Your task to perform on an android device: change your default location settings in chrome Image 0: 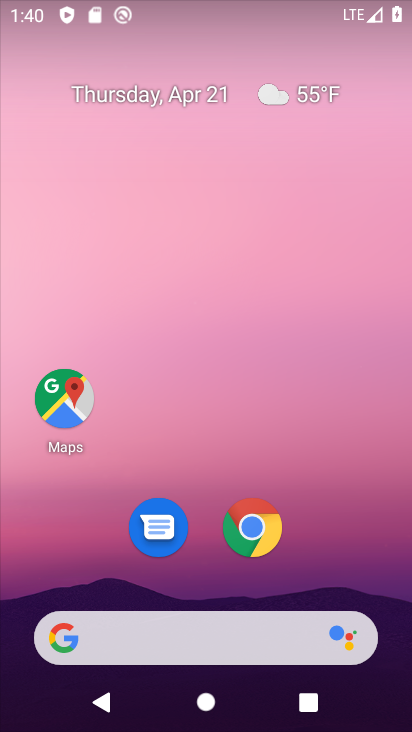
Step 0: drag from (339, 549) to (354, 124)
Your task to perform on an android device: change your default location settings in chrome Image 1: 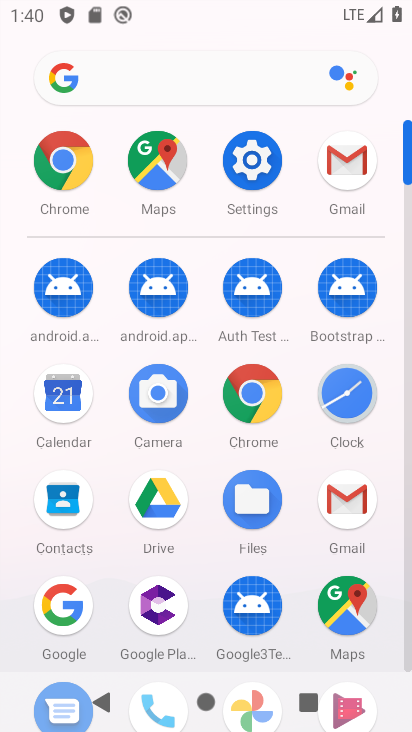
Step 1: click (260, 402)
Your task to perform on an android device: change your default location settings in chrome Image 2: 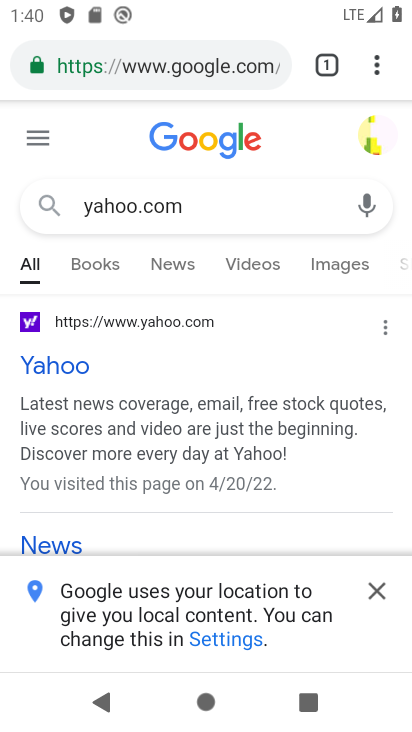
Step 2: click (377, 65)
Your task to perform on an android device: change your default location settings in chrome Image 3: 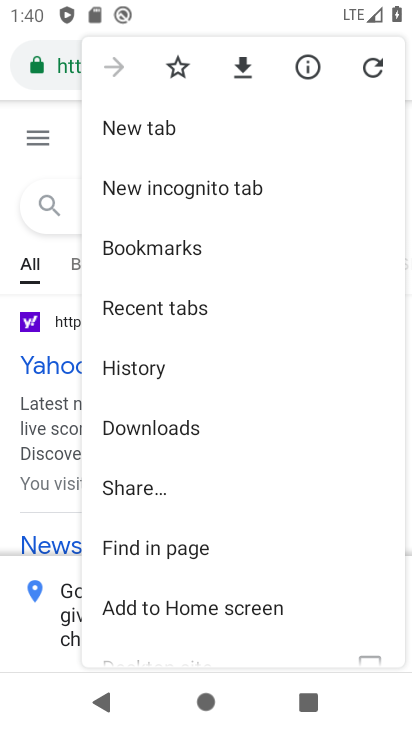
Step 3: drag from (312, 579) to (336, 445)
Your task to perform on an android device: change your default location settings in chrome Image 4: 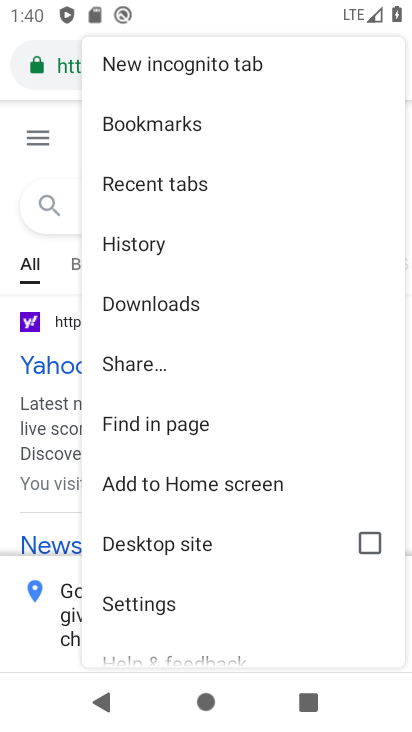
Step 4: drag from (306, 593) to (314, 437)
Your task to perform on an android device: change your default location settings in chrome Image 5: 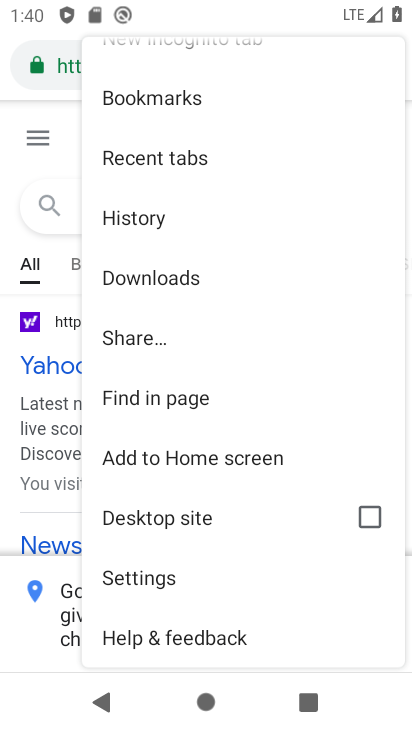
Step 5: click (164, 589)
Your task to perform on an android device: change your default location settings in chrome Image 6: 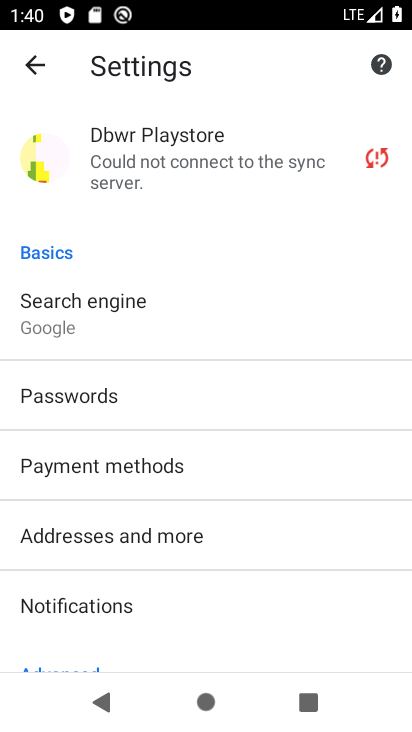
Step 6: drag from (363, 570) to (373, 441)
Your task to perform on an android device: change your default location settings in chrome Image 7: 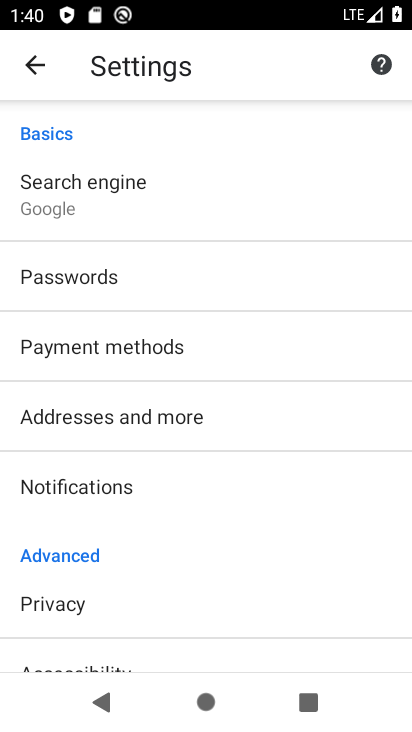
Step 7: drag from (363, 592) to (361, 460)
Your task to perform on an android device: change your default location settings in chrome Image 8: 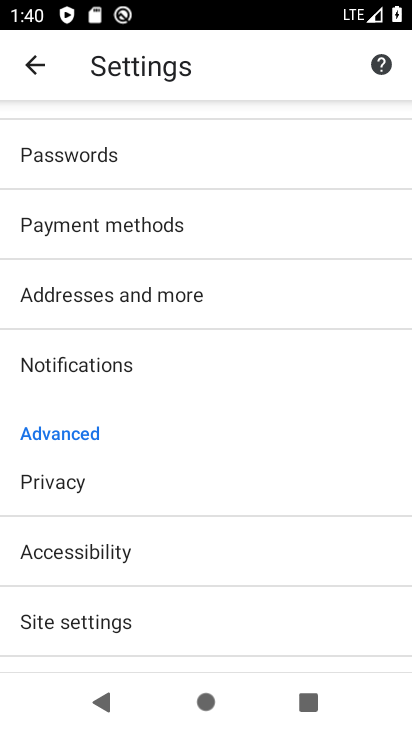
Step 8: drag from (341, 610) to (342, 476)
Your task to perform on an android device: change your default location settings in chrome Image 9: 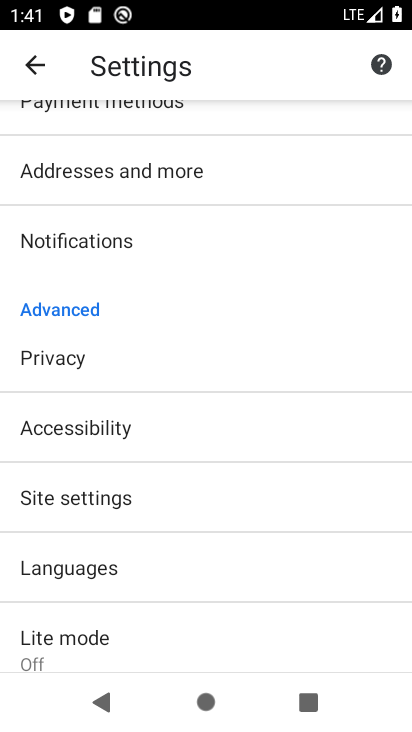
Step 9: drag from (338, 617) to (343, 520)
Your task to perform on an android device: change your default location settings in chrome Image 10: 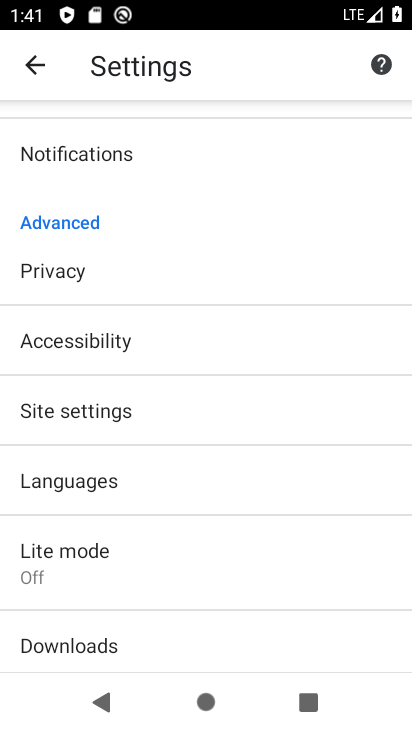
Step 10: drag from (325, 603) to (344, 480)
Your task to perform on an android device: change your default location settings in chrome Image 11: 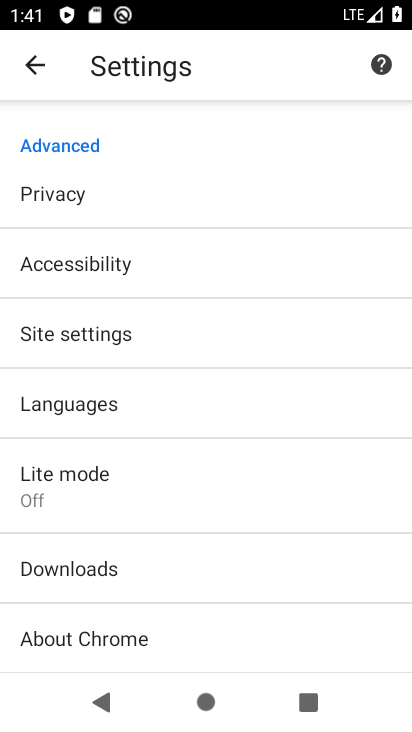
Step 11: click (221, 345)
Your task to perform on an android device: change your default location settings in chrome Image 12: 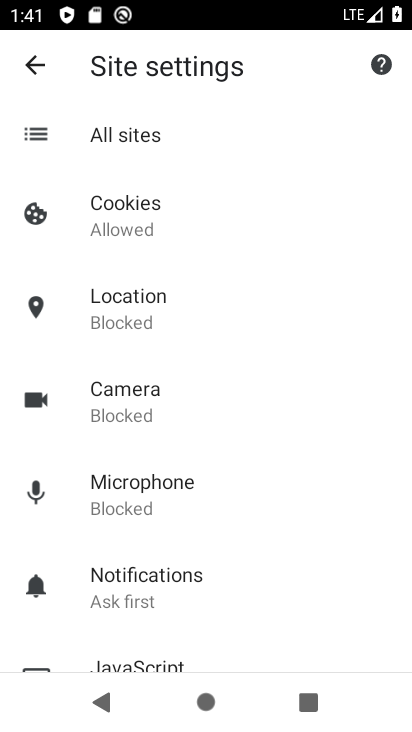
Step 12: drag from (332, 509) to (345, 428)
Your task to perform on an android device: change your default location settings in chrome Image 13: 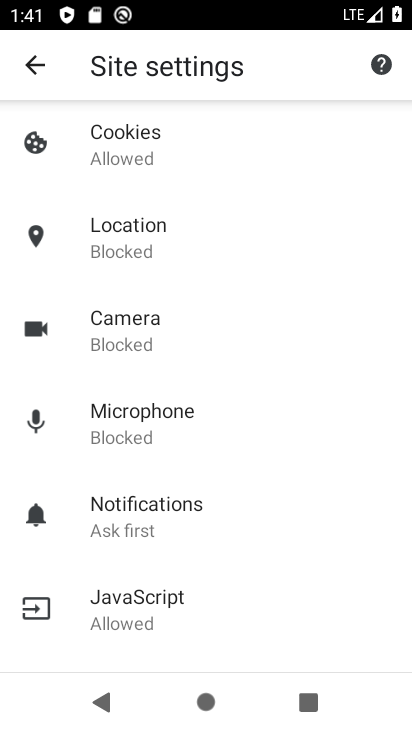
Step 13: drag from (352, 565) to (347, 419)
Your task to perform on an android device: change your default location settings in chrome Image 14: 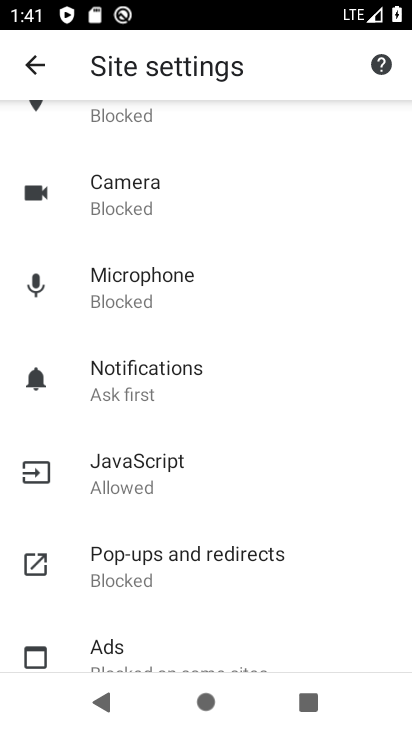
Step 14: drag from (325, 568) to (322, 460)
Your task to perform on an android device: change your default location settings in chrome Image 15: 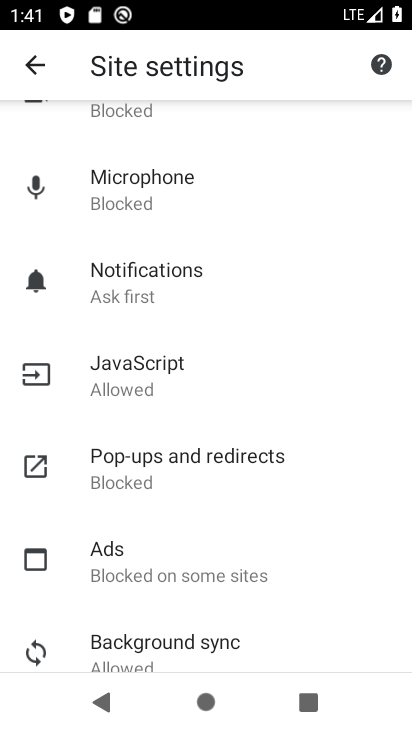
Step 15: drag from (332, 581) to (331, 476)
Your task to perform on an android device: change your default location settings in chrome Image 16: 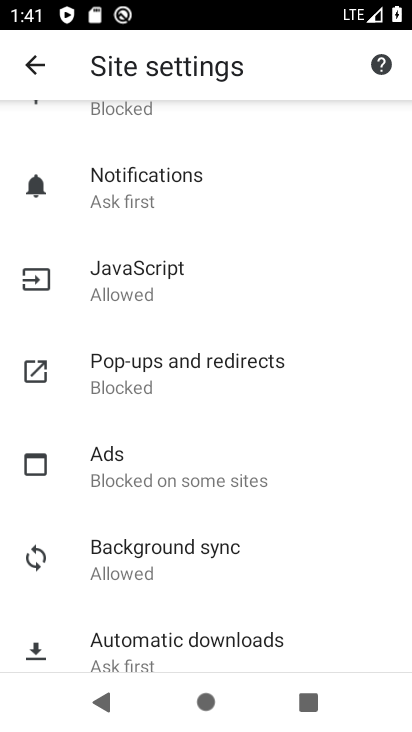
Step 16: drag from (341, 601) to (359, 350)
Your task to perform on an android device: change your default location settings in chrome Image 17: 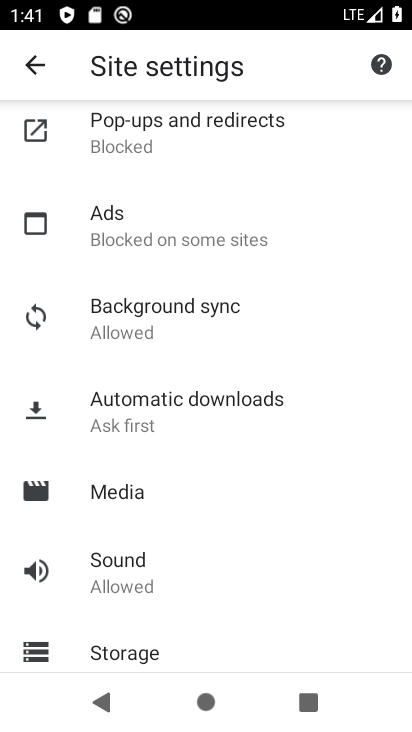
Step 17: drag from (343, 296) to (354, 502)
Your task to perform on an android device: change your default location settings in chrome Image 18: 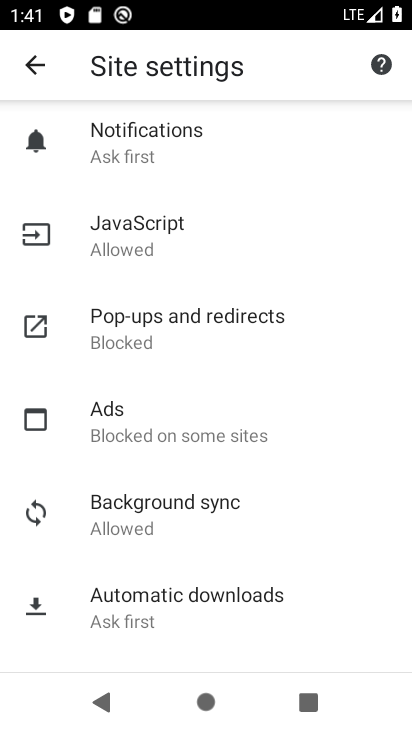
Step 18: drag from (359, 275) to (350, 461)
Your task to perform on an android device: change your default location settings in chrome Image 19: 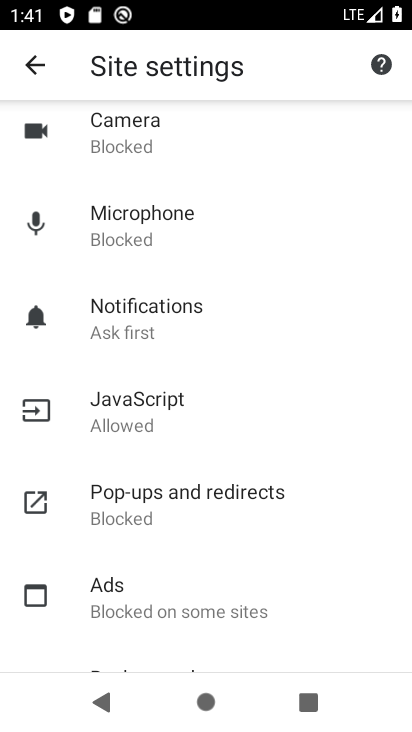
Step 19: drag from (333, 298) to (332, 469)
Your task to perform on an android device: change your default location settings in chrome Image 20: 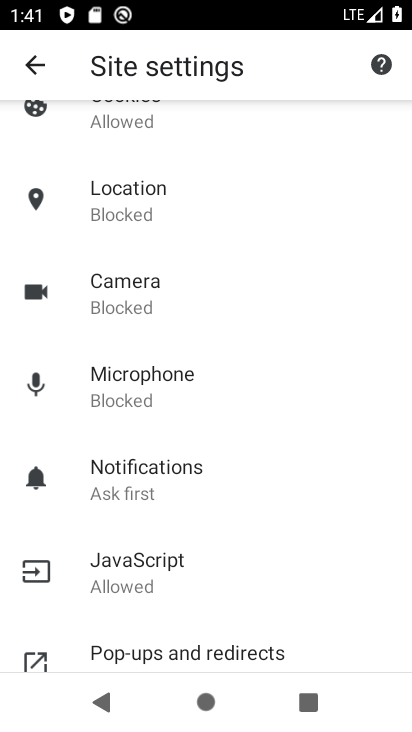
Step 20: click (158, 198)
Your task to perform on an android device: change your default location settings in chrome Image 21: 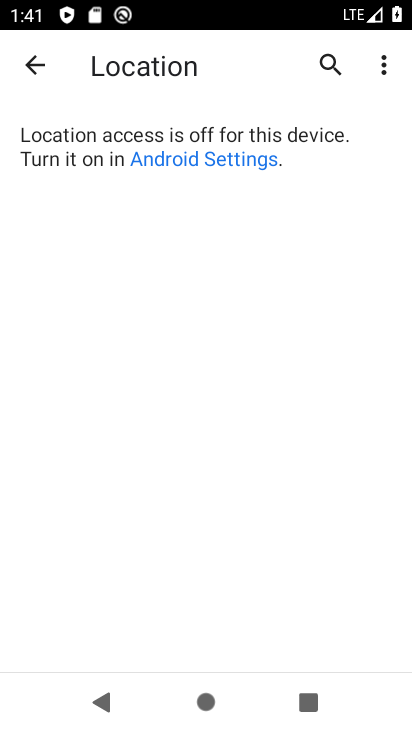
Step 21: click (228, 157)
Your task to perform on an android device: change your default location settings in chrome Image 22: 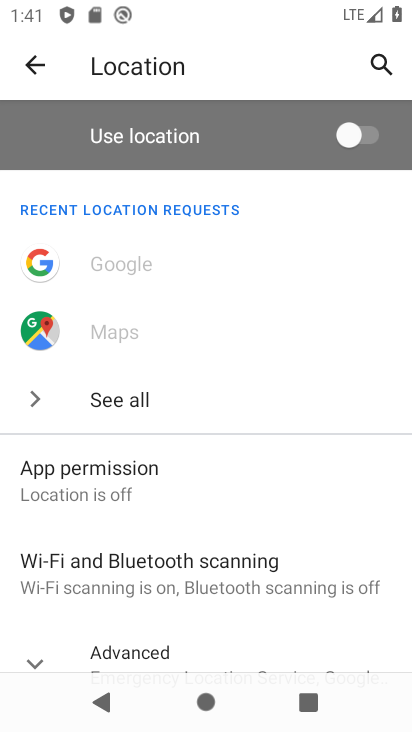
Step 22: click (349, 113)
Your task to perform on an android device: change your default location settings in chrome Image 23: 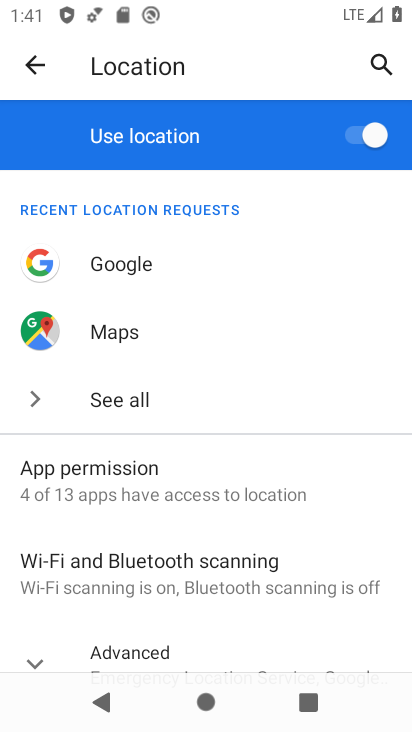
Step 23: task complete